Your task to perform on an android device: check storage Image 0: 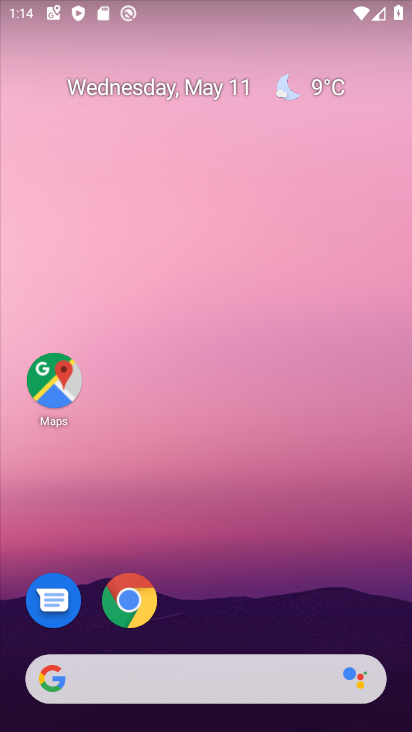
Step 0: drag from (209, 730) to (235, 0)
Your task to perform on an android device: check storage Image 1: 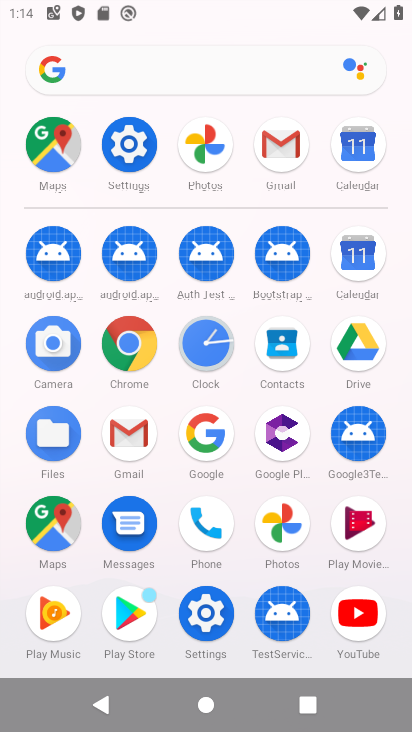
Step 1: click (122, 157)
Your task to perform on an android device: check storage Image 2: 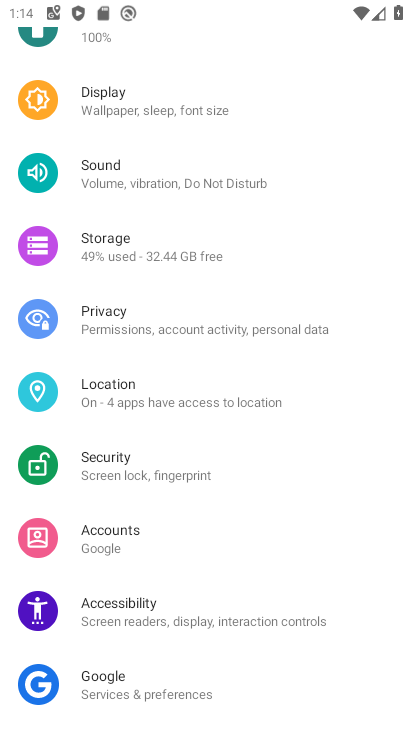
Step 2: click (206, 240)
Your task to perform on an android device: check storage Image 3: 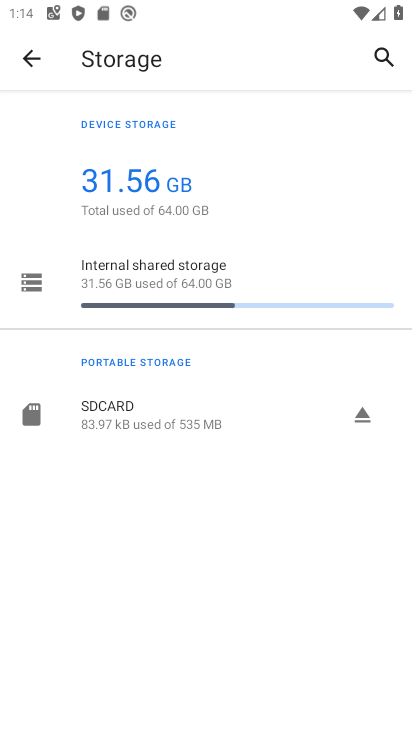
Step 3: task complete